Your task to perform on an android device: Open Google Chrome and click the shortcut for Amazon.com Image 0: 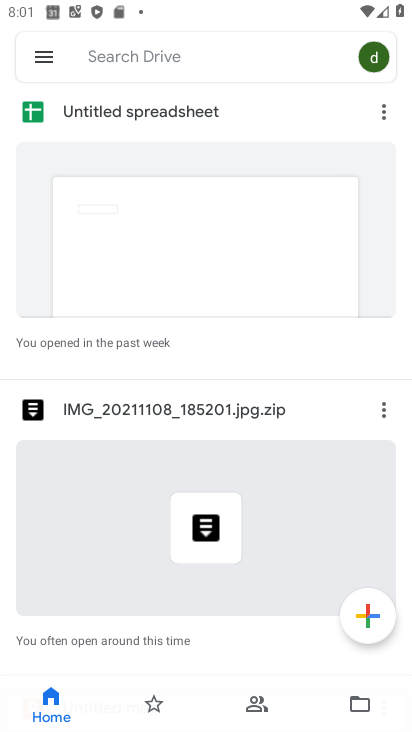
Step 0: press home button
Your task to perform on an android device: Open Google Chrome and click the shortcut for Amazon.com Image 1: 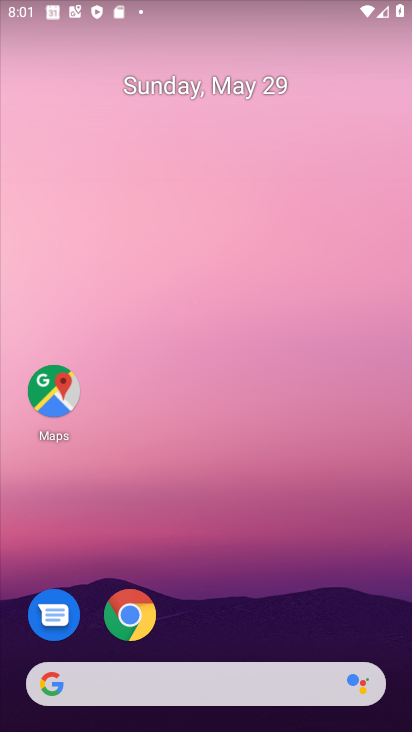
Step 1: drag from (259, 575) to (277, 168)
Your task to perform on an android device: Open Google Chrome and click the shortcut for Amazon.com Image 2: 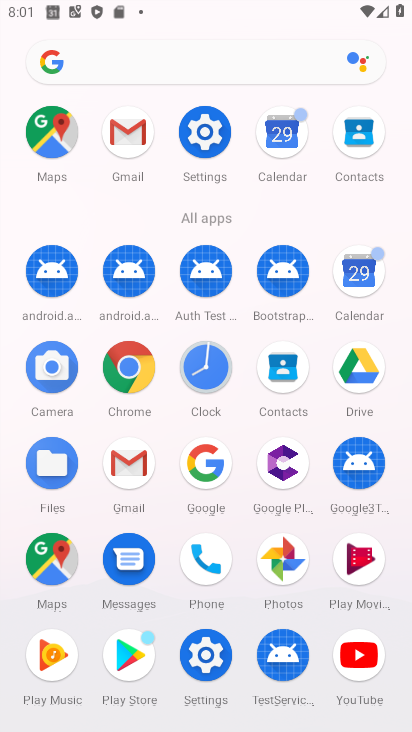
Step 2: click (116, 376)
Your task to perform on an android device: Open Google Chrome and click the shortcut for Amazon.com Image 3: 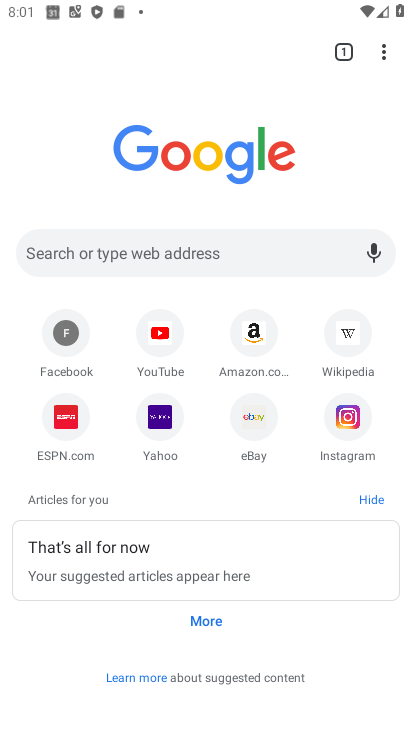
Step 3: click (262, 333)
Your task to perform on an android device: Open Google Chrome and click the shortcut for Amazon.com Image 4: 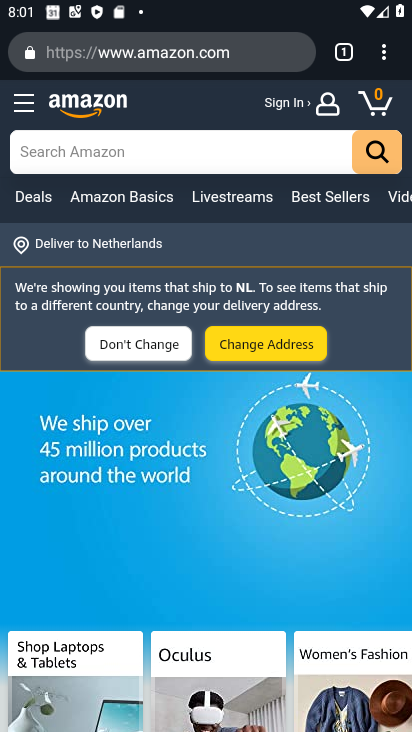
Step 4: task complete